Your task to perform on an android device: turn on showing notifications on the lock screen Image 0: 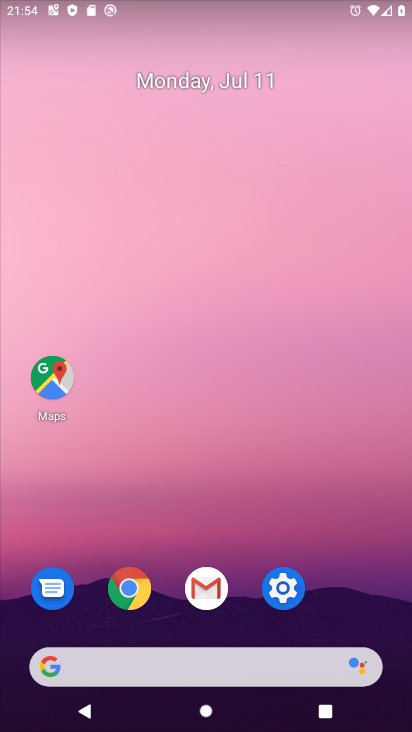
Step 0: click (275, 603)
Your task to perform on an android device: turn on showing notifications on the lock screen Image 1: 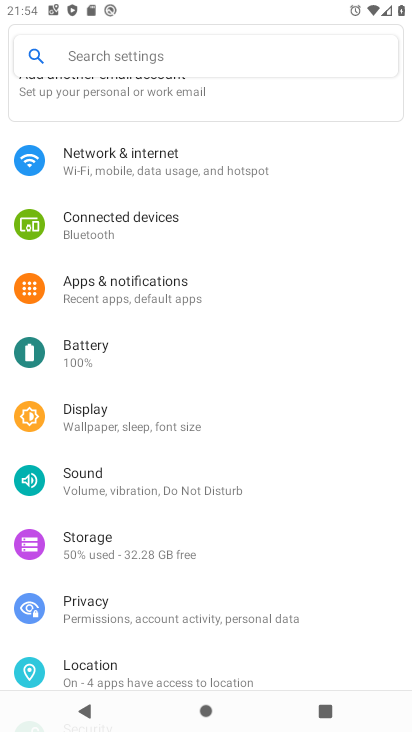
Step 1: click (124, 54)
Your task to perform on an android device: turn on showing notifications on the lock screen Image 2: 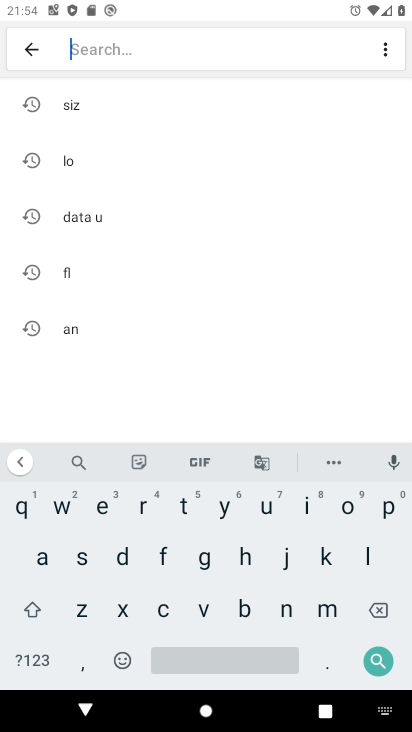
Step 2: click (281, 612)
Your task to perform on an android device: turn on showing notifications on the lock screen Image 3: 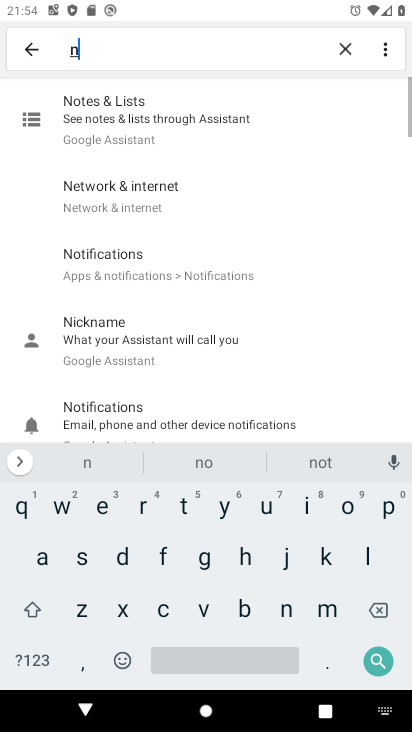
Step 3: click (351, 512)
Your task to perform on an android device: turn on showing notifications on the lock screen Image 4: 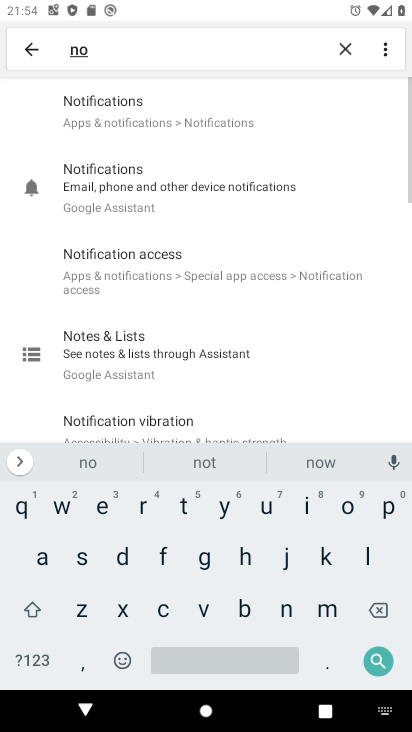
Step 4: click (124, 123)
Your task to perform on an android device: turn on showing notifications on the lock screen Image 5: 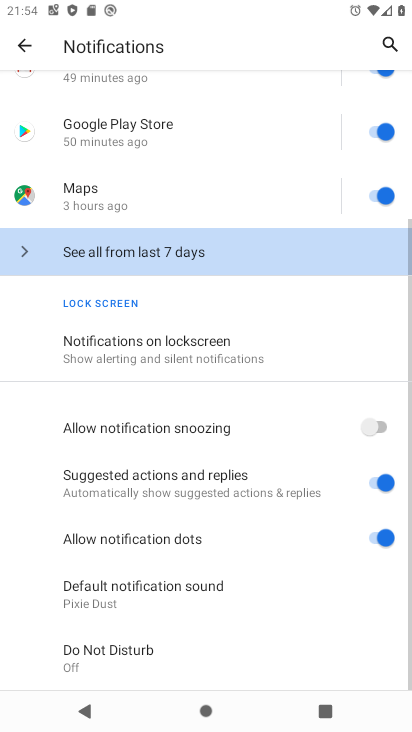
Step 5: click (145, 360)
Your task to perform on an android device: turn on showing notifications on the lock screen Image 6: 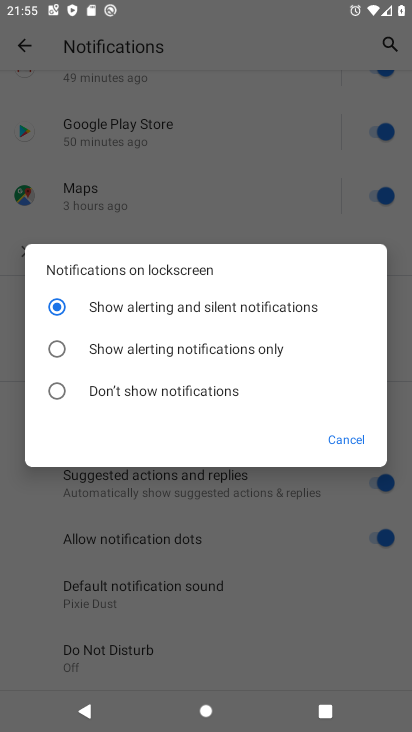
Step 6: task complete